Your task to perform on an android device: open chrome and create a bookmark for the current page Image 0: 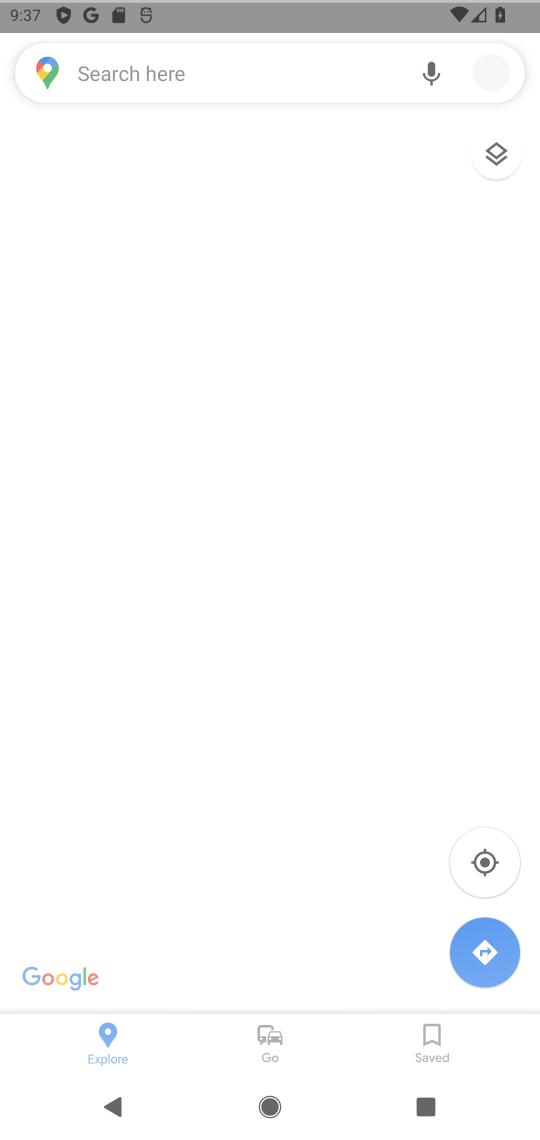
Step 0: press home button
Your task to perform on an android device: open chrome and create a bookmark for the current page Image 1: 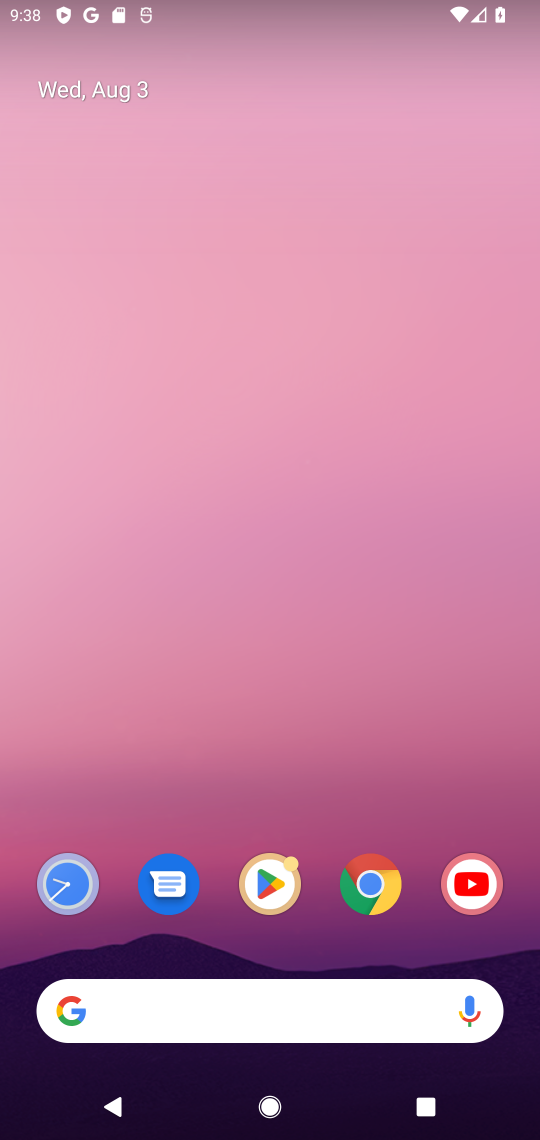
Step 1: click (375, 880)
Your task to perform on an android device: open chrome and create a bookmark for the current page Image 2: 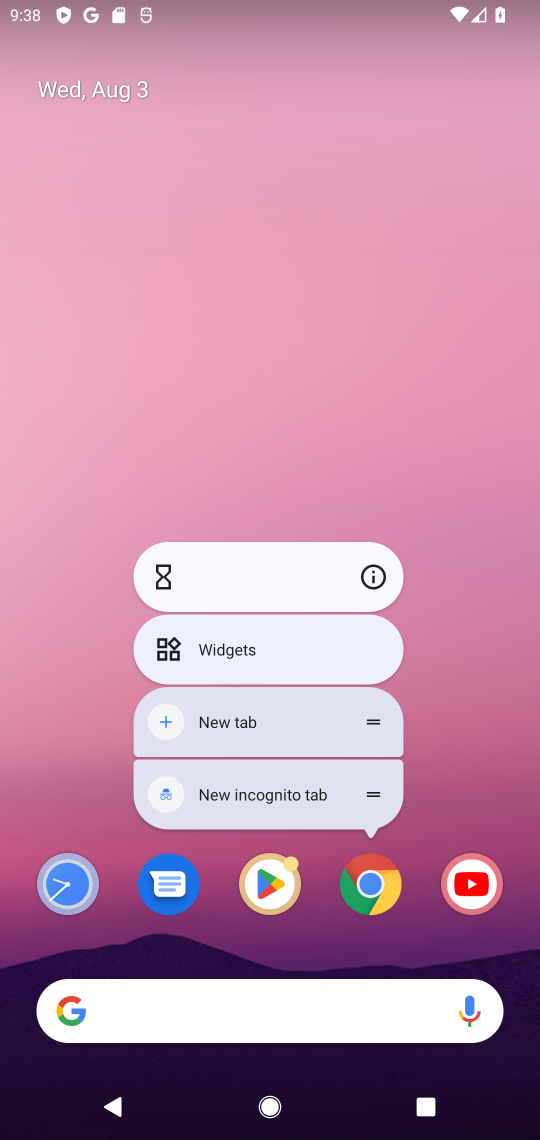
Step 2: click (375, 880)
Your task to perform on an android device: open chrome and create a bookmark for the current page Image 3: 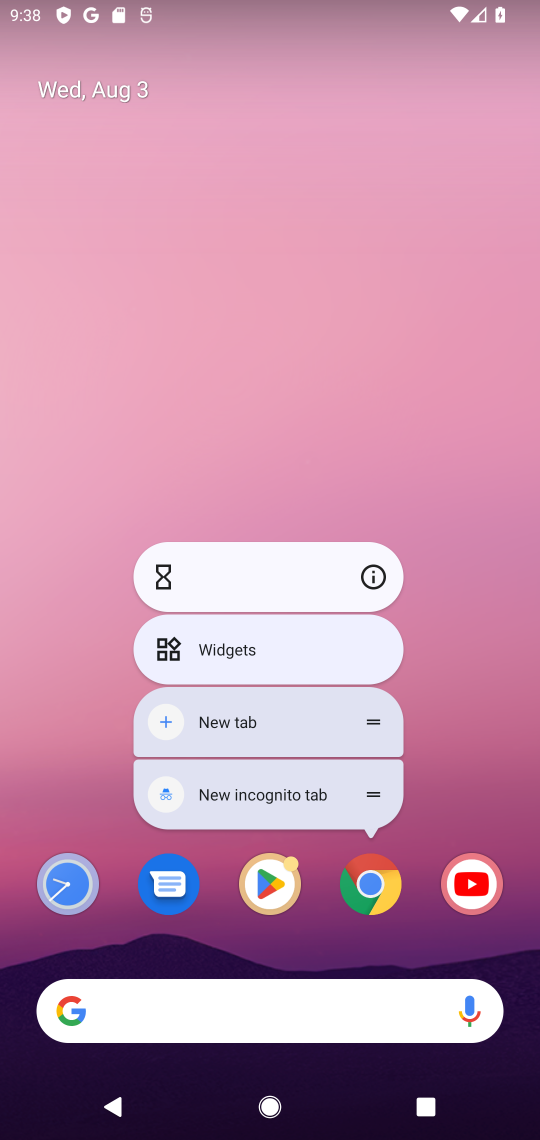
Step 3: click (375, 880)
Your task to perform on an android device: open chrome and create a bookmark for the current page Image 4: 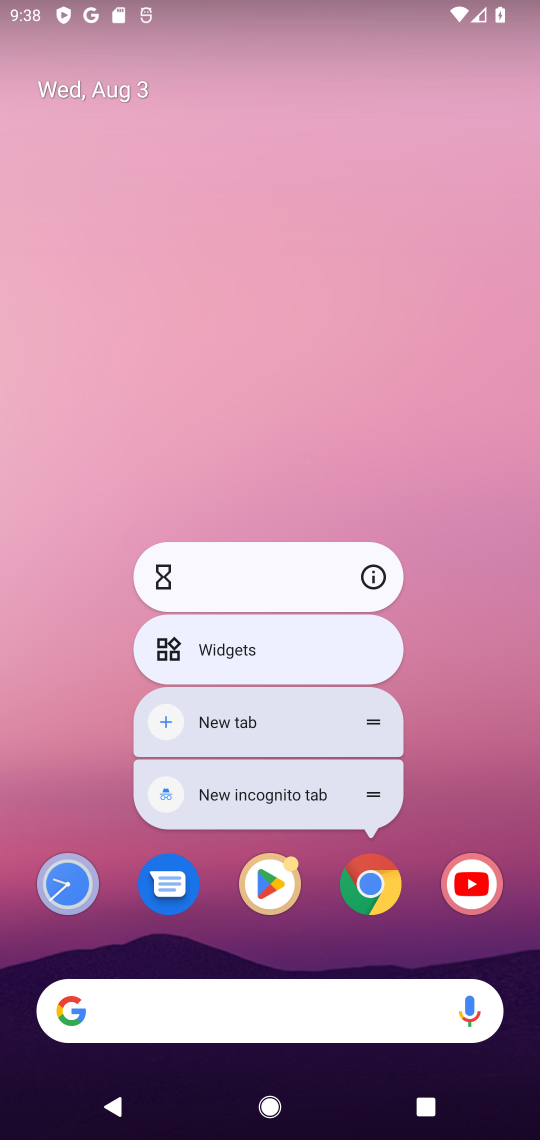
Step 4: click (393, 900)
Your task to perform on an android device: open chrome and create a bookmark for the current page Image 5: 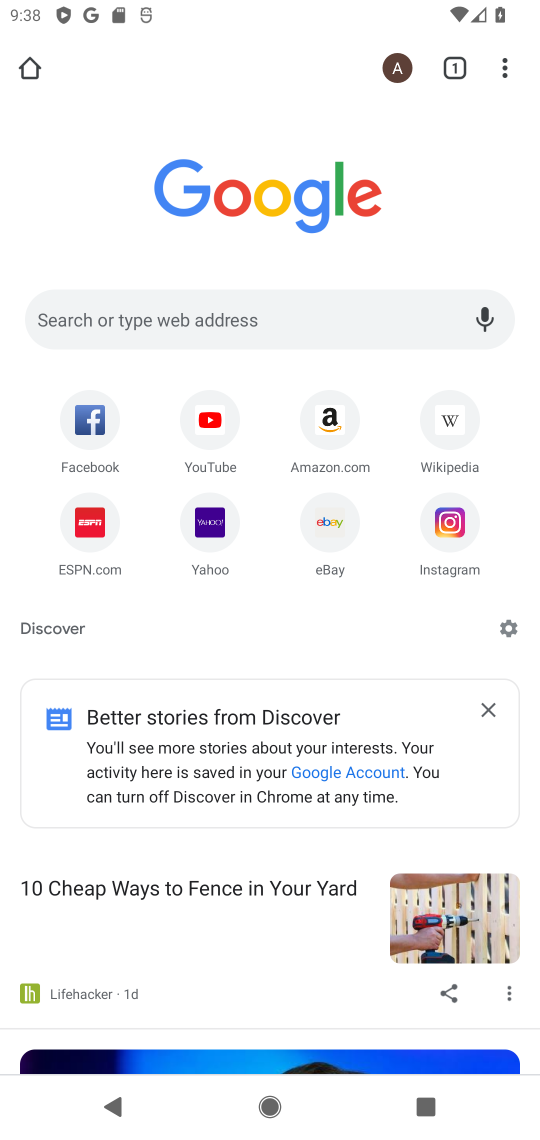
Step 5: click (506, 73)
Your task to perform on an android device: open chrome and create a bookmark for the current page Image 6: 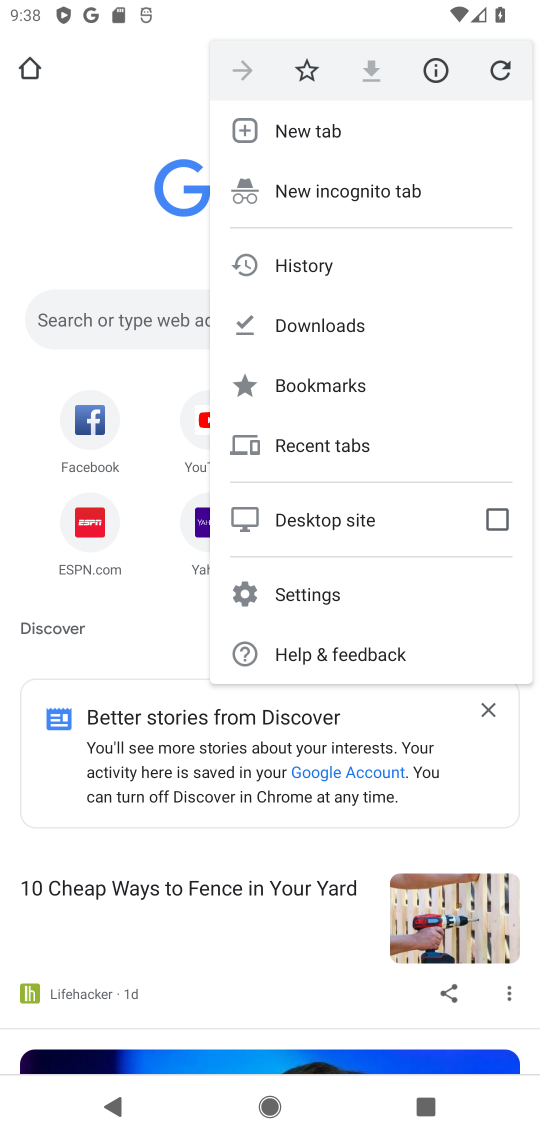
Step 6: click (306, 69)
Your task to perform on an android device: open chrome and create a bookmark for the current page Image 7: 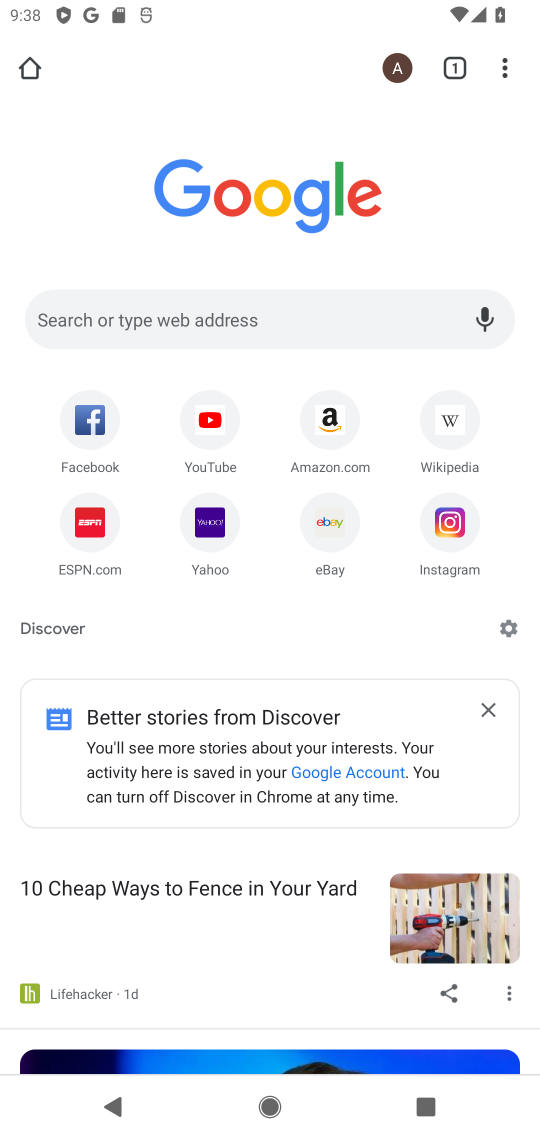
Step 7: task complete